Your task to perform on an android device: allow notifications from all sites in the chrome app Image 0: 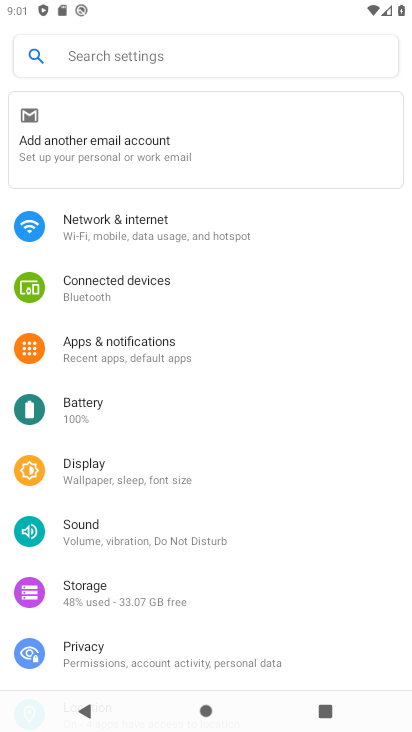
Step 0: press home button
Your task to perform on an android device: allow notifications from all sites in the chrome app Image 1: 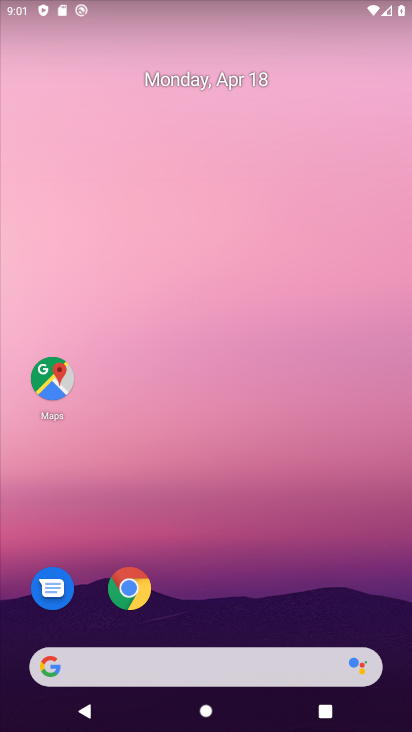
Step 1: drag from (250, 590) to (293, 53)
Your task to perform on an android device: allow notifications from all sites in the chrome app Image 2: 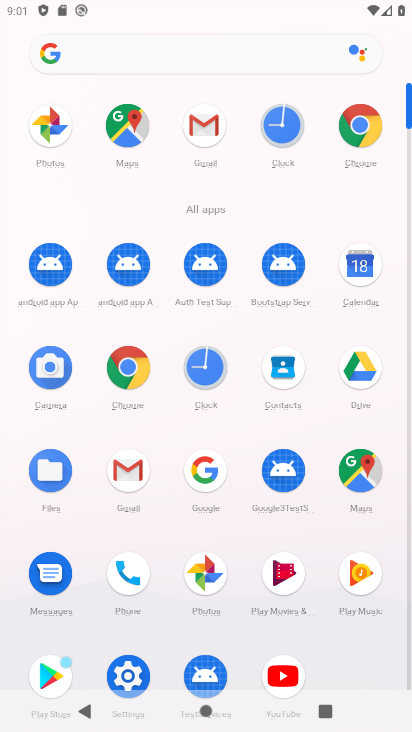
Step 2: click (124, 364)
Your task to perform on an android device: allow notifications from all sites in the chrome app Image 3: 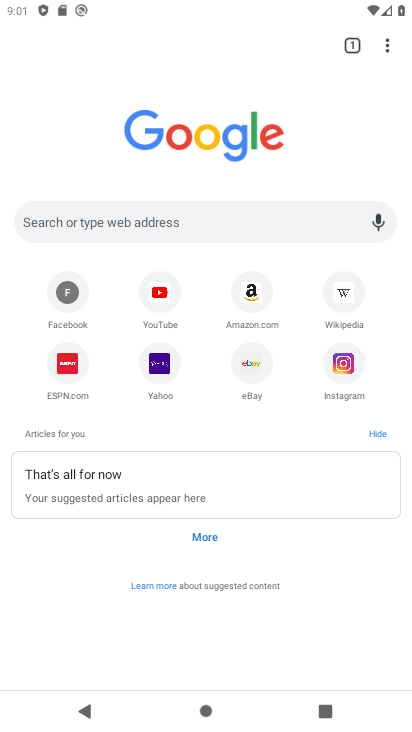
Step 3: drag from (386, 43) to (227, 379)
Your task to perform on an android device: allow notifications from all sites in the chrome app Image 4: 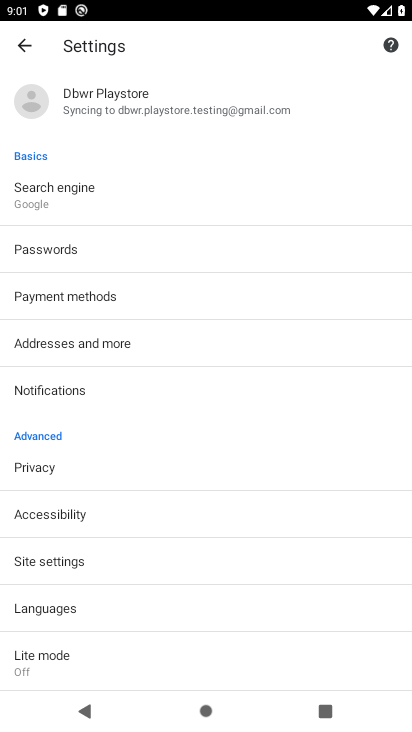
Step 4: click (39, 554)
Your task to perform on an android device: allow notifications from all sites in the chrome app Image 5: 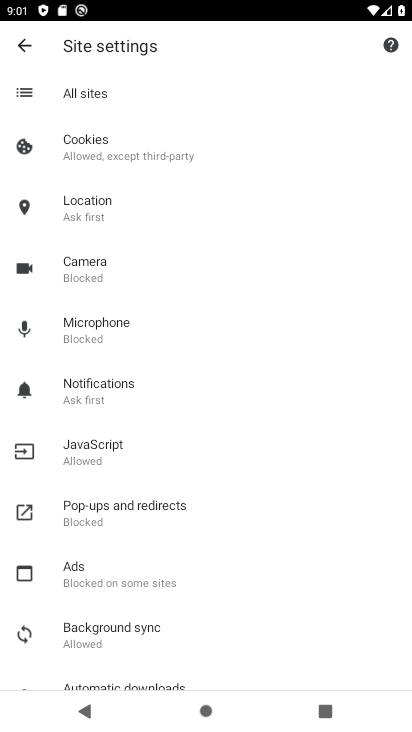
Step 5: click (85, 99)
Your task to perform on an android device: allow notifications from all sites in the chrome app Image 6: 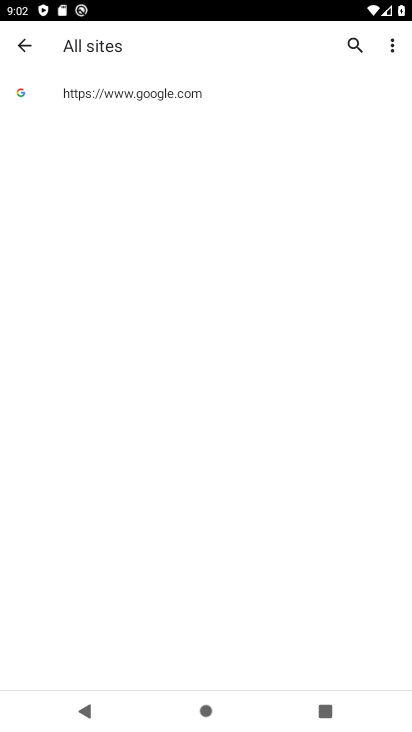
Step 6: click (165, 95)
Your task to perform on an android device: allow notifications from all sites in the chrome app Image 7: 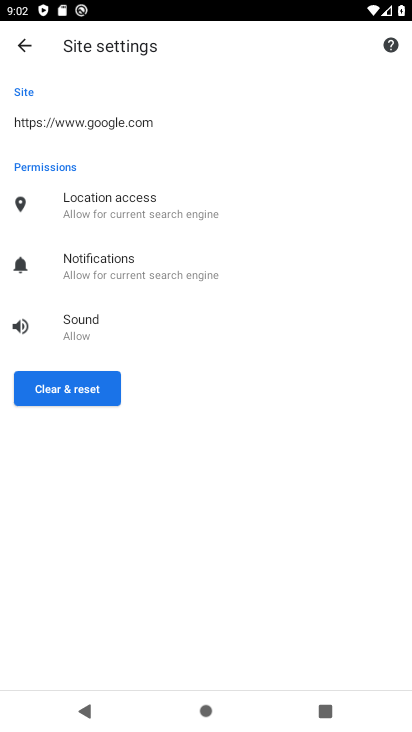
Step 7: click (132, 267)
Your task to perform on an android device: allow notifications from all sites in the chrome app Image 8: 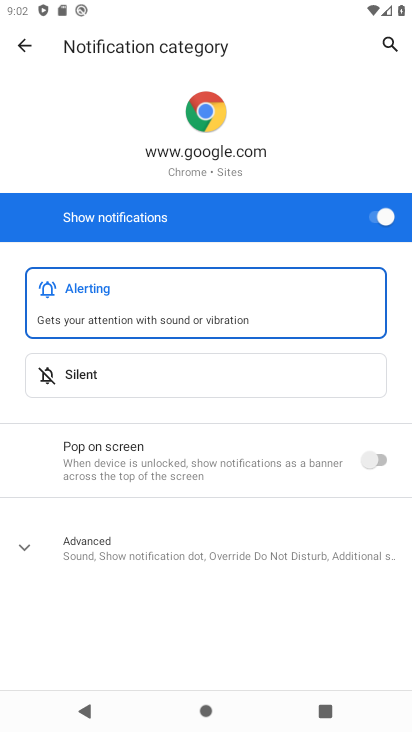
Step 8: task complete